Your task to perform on an android device: turn off priority inbox in the gmail app Image 0: 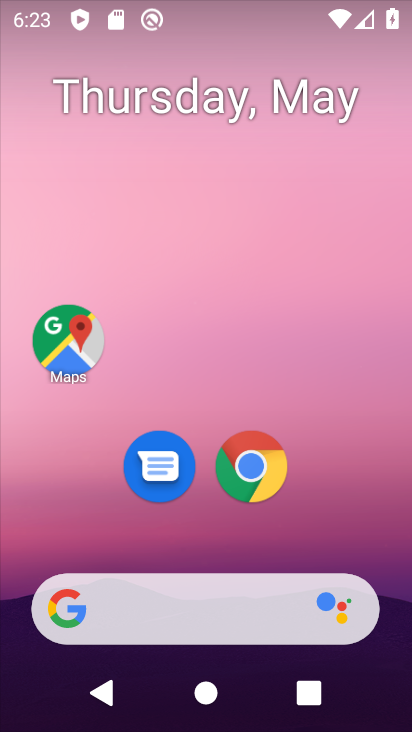
Step 0: drag from (299, 488) to (66, 6)
Your task to perform on an android device: turn off priority inbox in the gmail app Image 1: 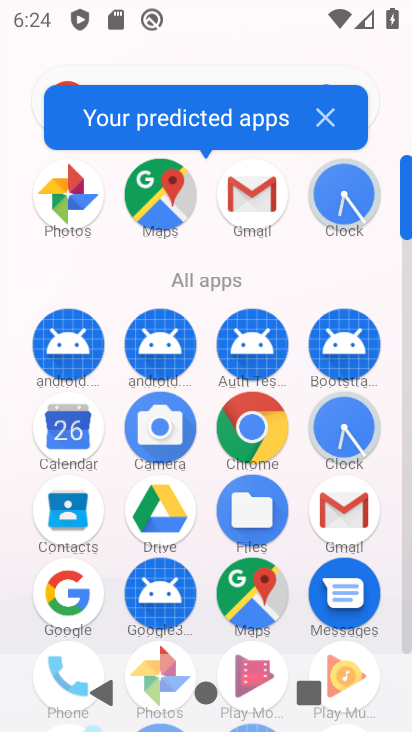
Step 1: click (250, 205)
Your task to perform on an android device: turn off priority inbox in the gmail app Image 2: 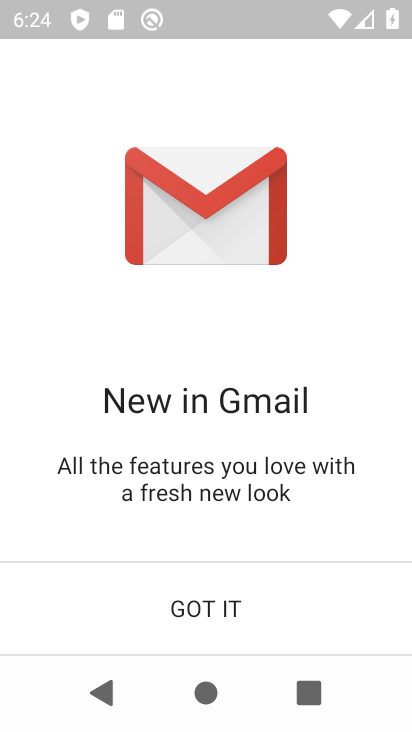
Step 2: click (204, 611)
Your task to perform on an android device: turn off priority inbox in the gmail app Image 3: 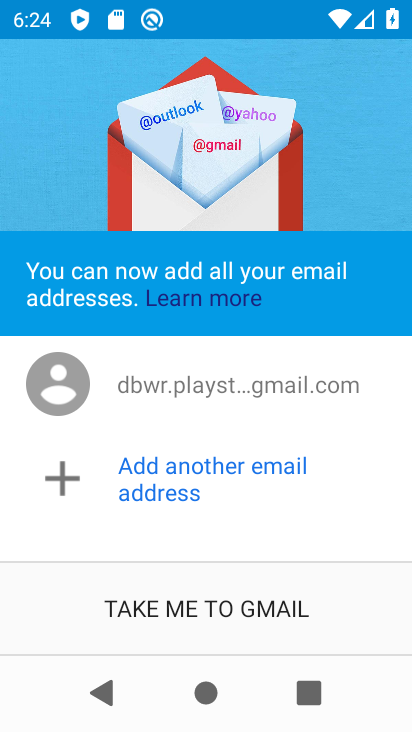
Step 3: click (233, 605)
Your task to perform on an android device: turn off priority inbox in the gmail app Image 4: 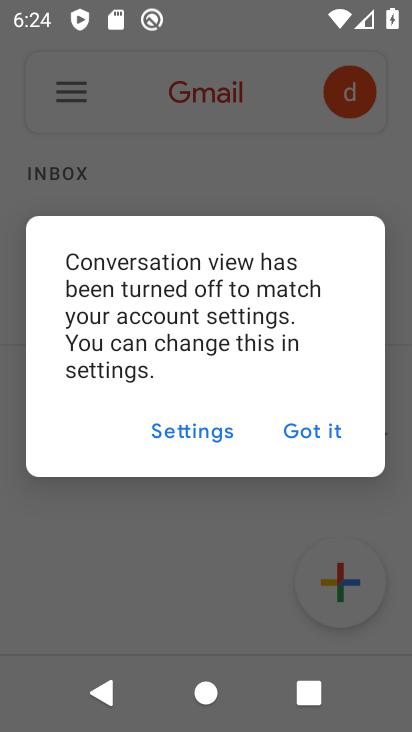
Step 4: click (296, 426)
Your task to perform on an android device: turn off priority inbox in the gmail app Image 5: 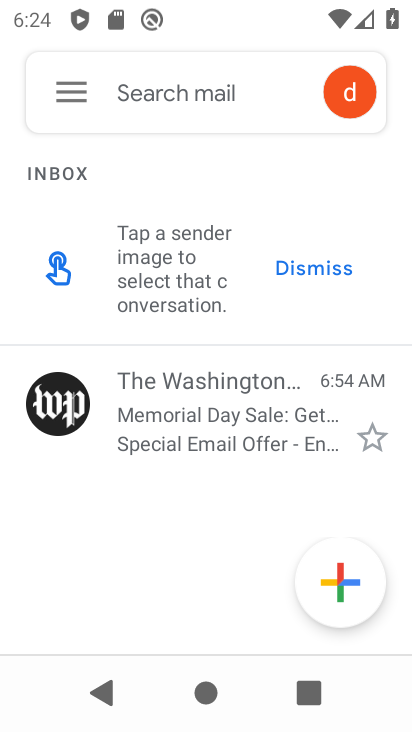
Step 5: click (86, 100)
Your task to perform on an android device: turn off priority inbox in the gmail app Image 6: 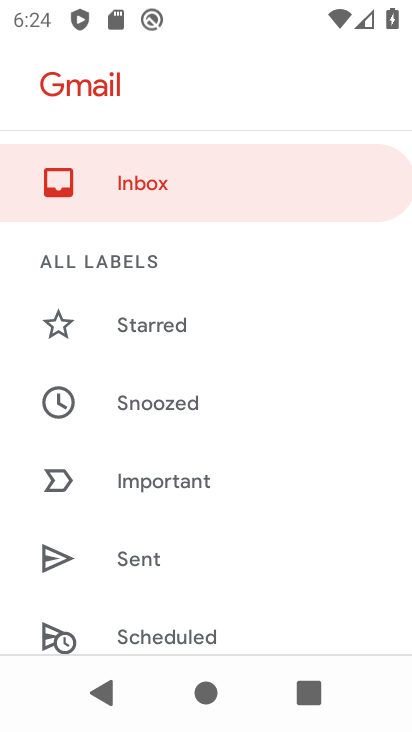
Step 6: drag from (296, 558) to (223, 169)
Your task to perform on an android device: turn off priority inbox in the gmail app Image 7: 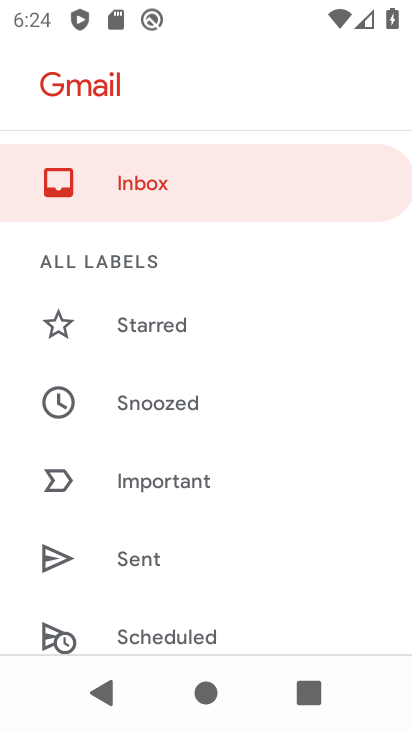
Step 7: drag from (245, 537) to (212, 281)
Your task to perform on an android device: turn off priority inbox in the gmail app Image 8: 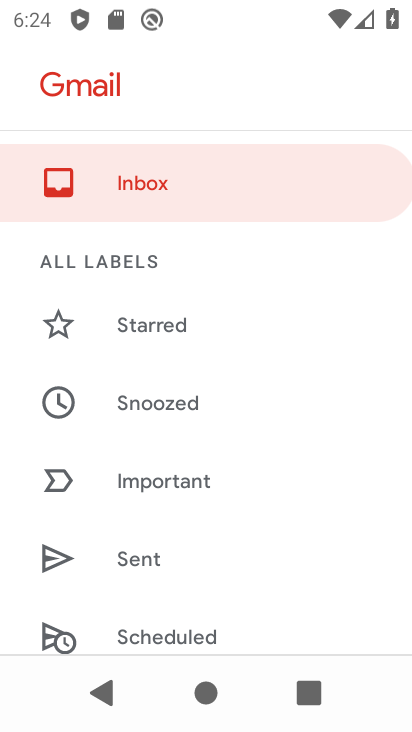
Step 8: drag from (210, 531) to (200, 166)
Your task to perform on an android device: turn off priority inbox in the gmail app Image 9: 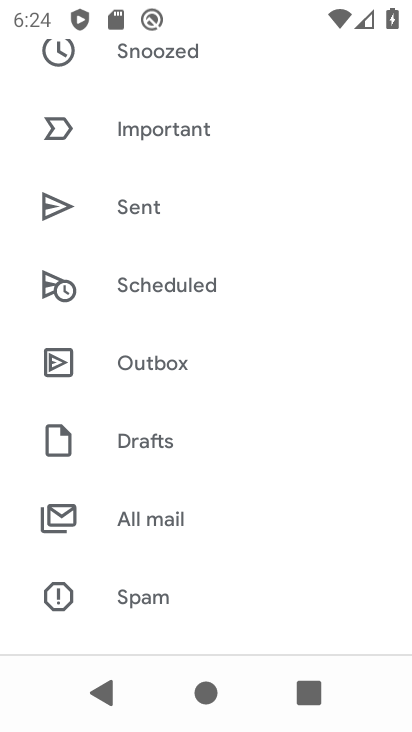
Step 9: drag from (236, 537) to (207, 180)
Your task to perform on an android device: turn off priority inbox in the gmail app Image 10: 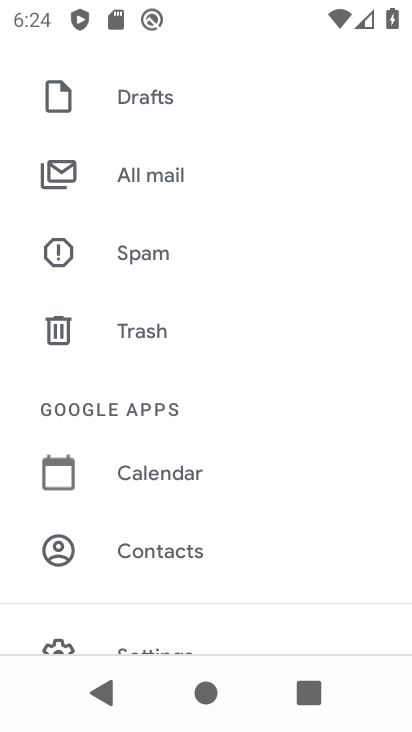
Step 10: drag from (250, 556) to (221, 235)
Your task to perform on an android device: turn off priority inbox in the gmail app Image 11: 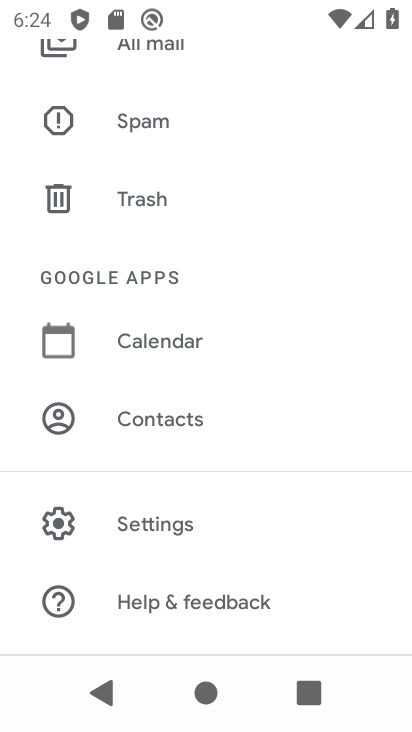
Step 11: click (147, 518)
Your task to perform on an android device: turn off priority inbox in the gmail app Image 12: 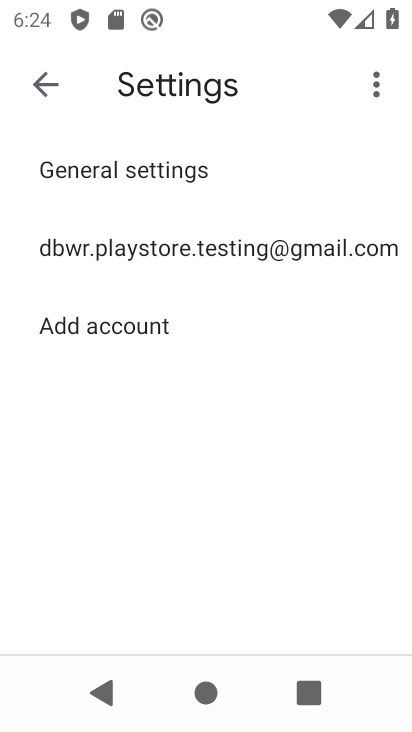
Step 12: click (76, 260)
Your task to perform on an android device: turn off priority inbox in the gmail app Image 13: 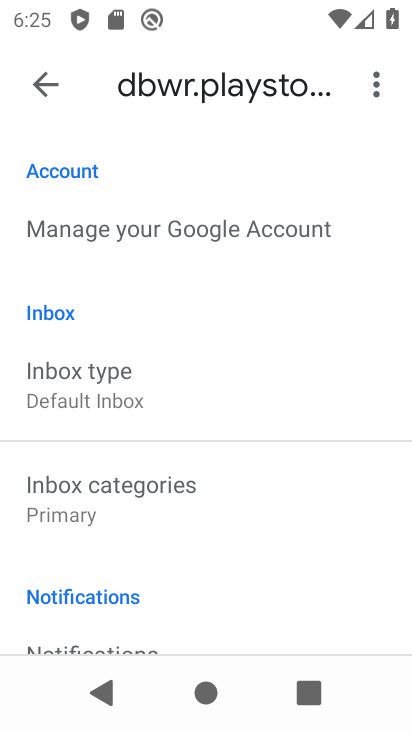
Step 13: click (88, 374)
Your task to perform on an android device: turn off priority inbox in the gmail app Image 14: 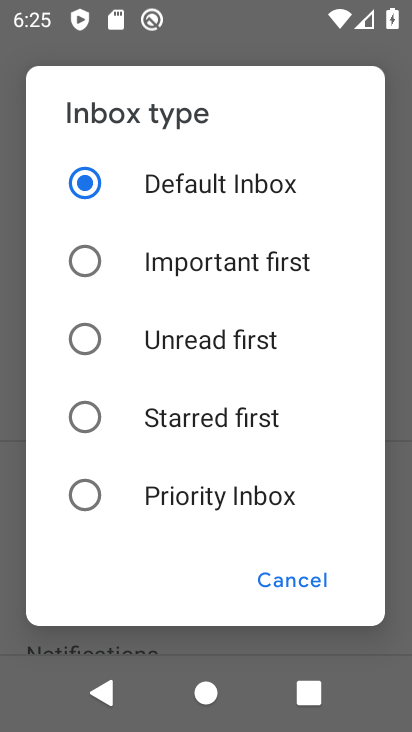
Step 14: task complete